Your task to perform on an android device: Open notification settings Image 0: 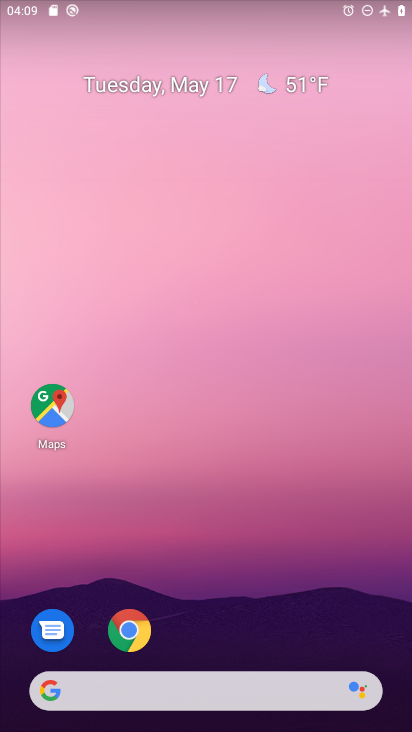
Step 0: drag from (246, 582) to (313, 44)
Your task to perform on an android device: Open notification settings Image 1: 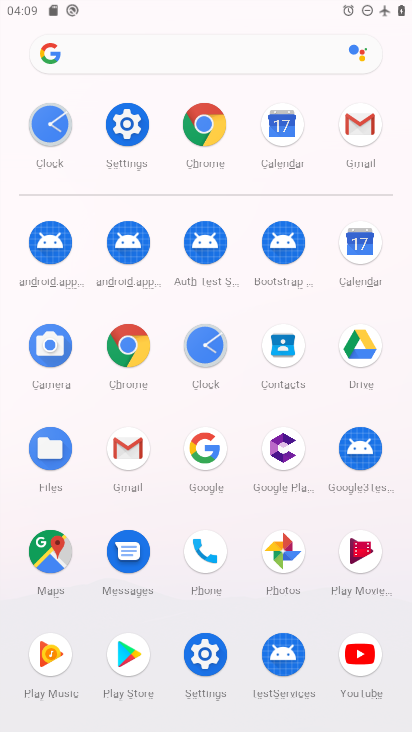
Step 1: click (111, 124)
Your task to perform on an android device: Open notification settings Image 2: 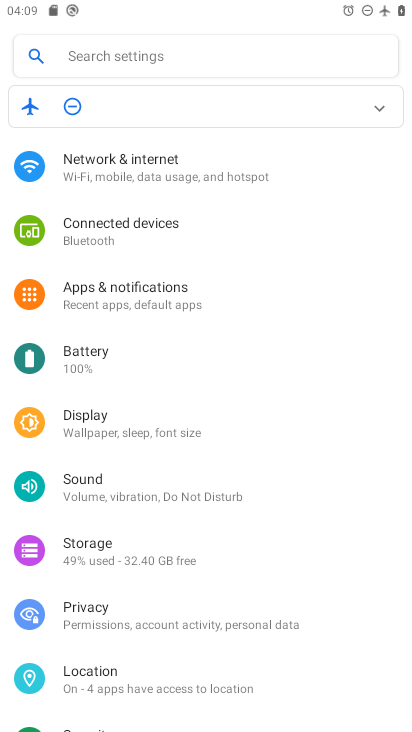
Step 2: click (162, 304)
Your task to perform on an android device: Open notification settings Image 3: 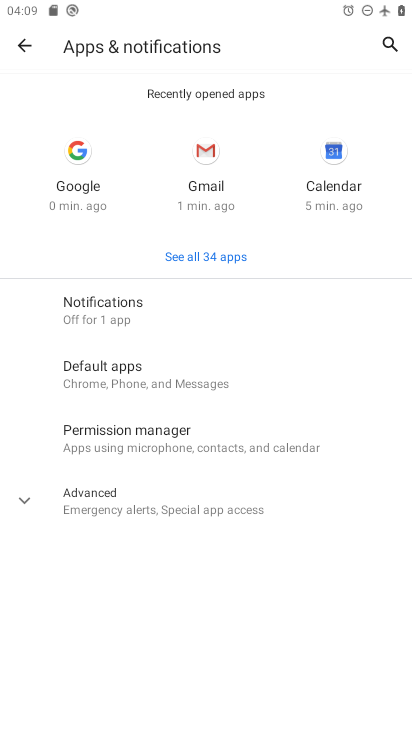
Step 3: task complete